Your task to perform on an android device: Go to sound settings Image 0: 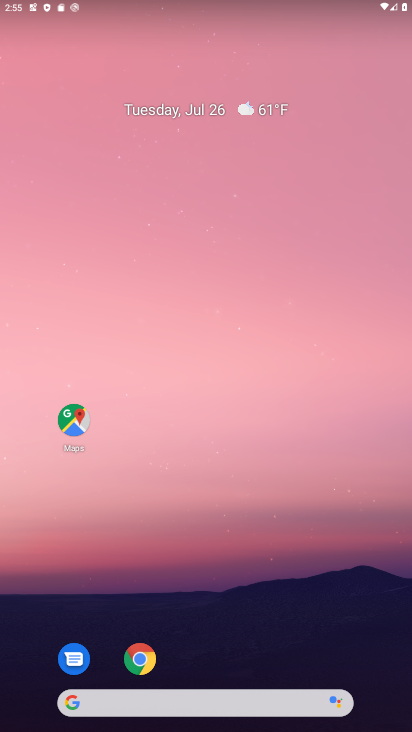
Step 0: drag from (195, 632) to (199, 109)
Your task to perform on an android device: Go to sound settings Image 1: 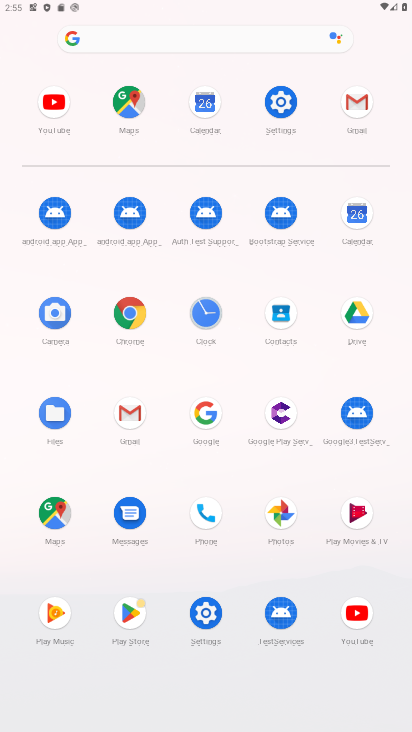
Step 1: click (283, 105)
Your task to perform on an android device: Go to sound settings Image 2: 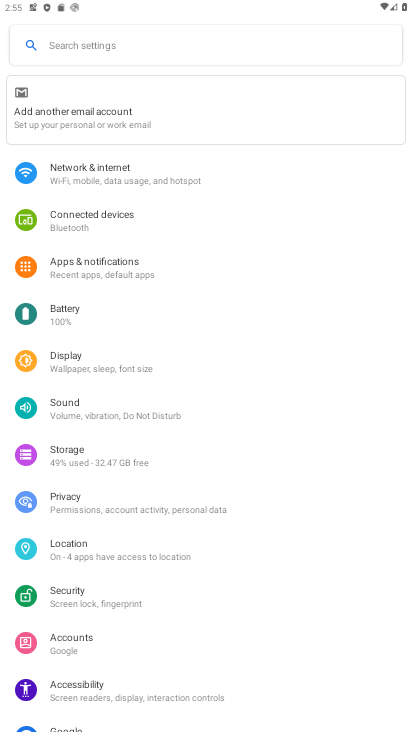
Step 2: click (62, 414)
Your task to perform on an android device: Go to sound settings Image 3: 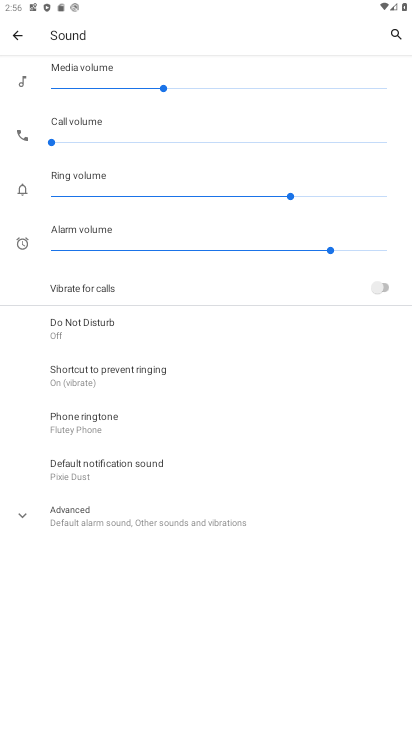
Step 3: task complete